Your task to perform on an android device: turn on the 24-hour format for clock Image 0: 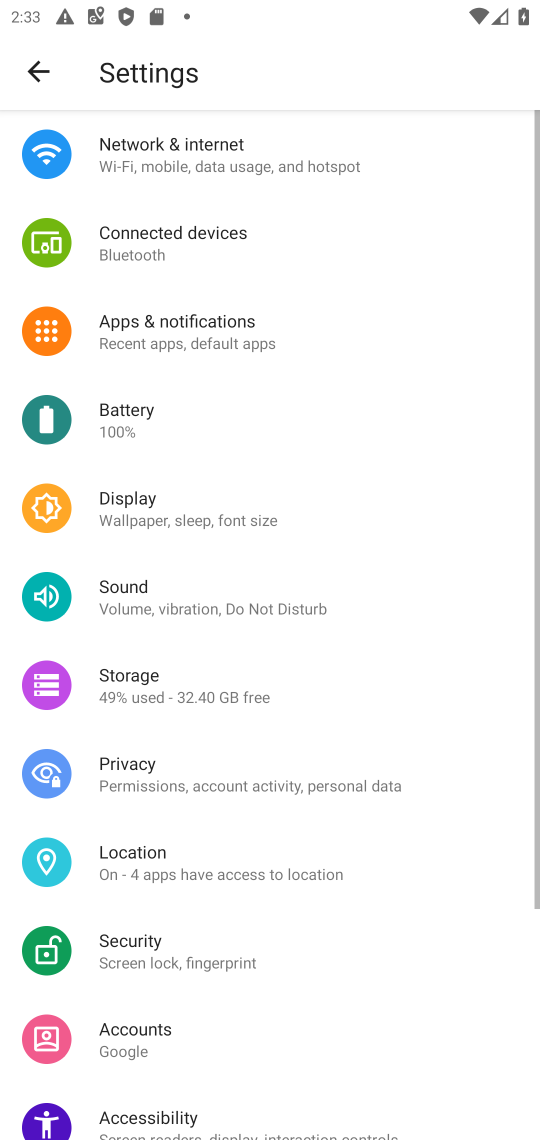
Step 0: press home button
Your task to perform on an android device: turn on the 24-hour format for clock Image 1: 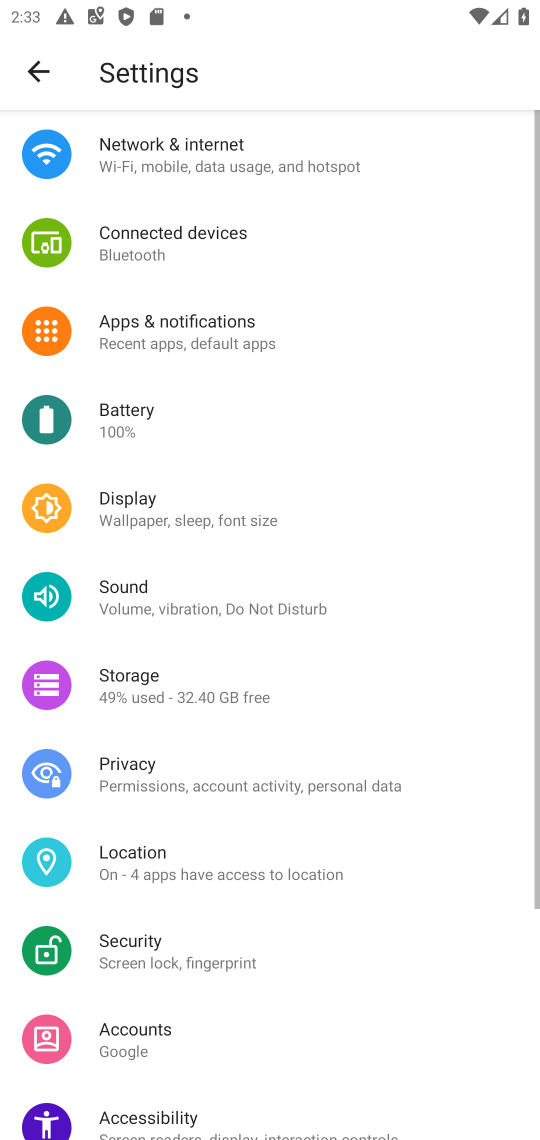
Step 1: press home button
Your task to perform on an android device: turn on the 24-hour format for clock Image 2: 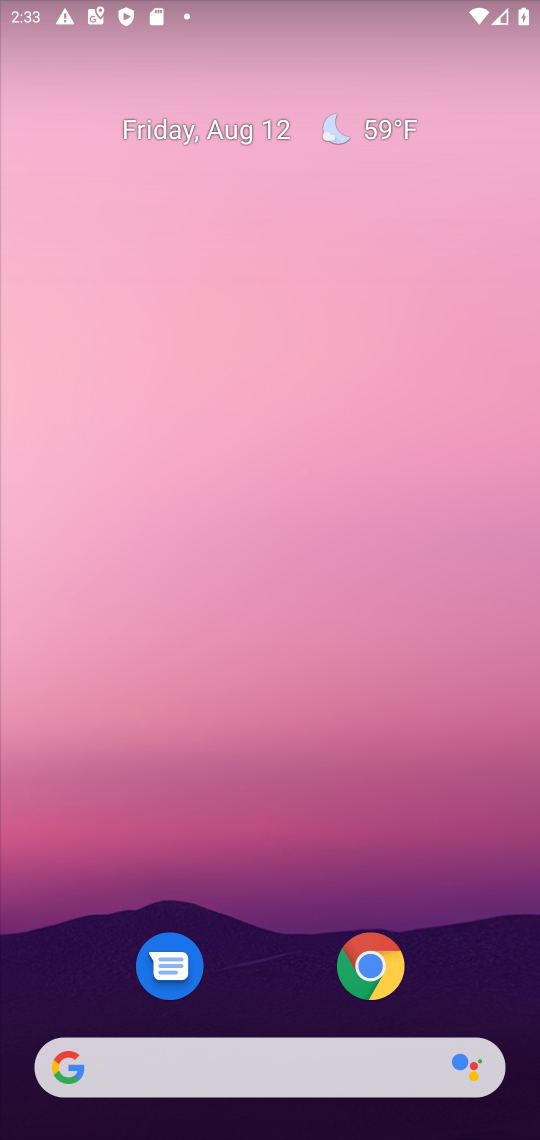
Step 2: press home button
Your task to perform on an android device: turn on the 24-hour format for clock Image 3: 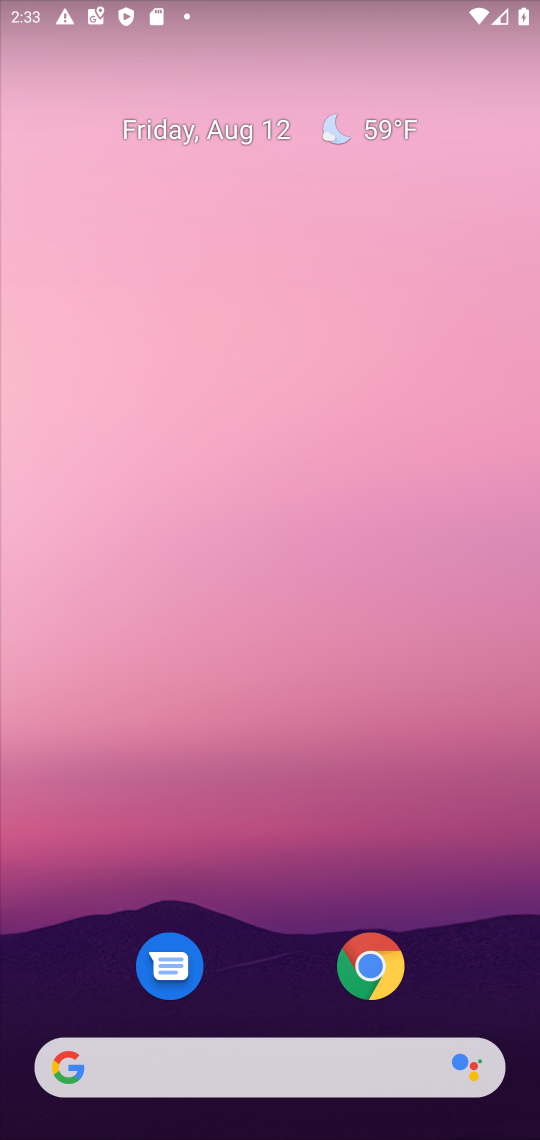
Step 3: drag from (281, 832) to (402, 192)
Your task to perform on an android device: turn on the 24-hour format for clock Image 4: 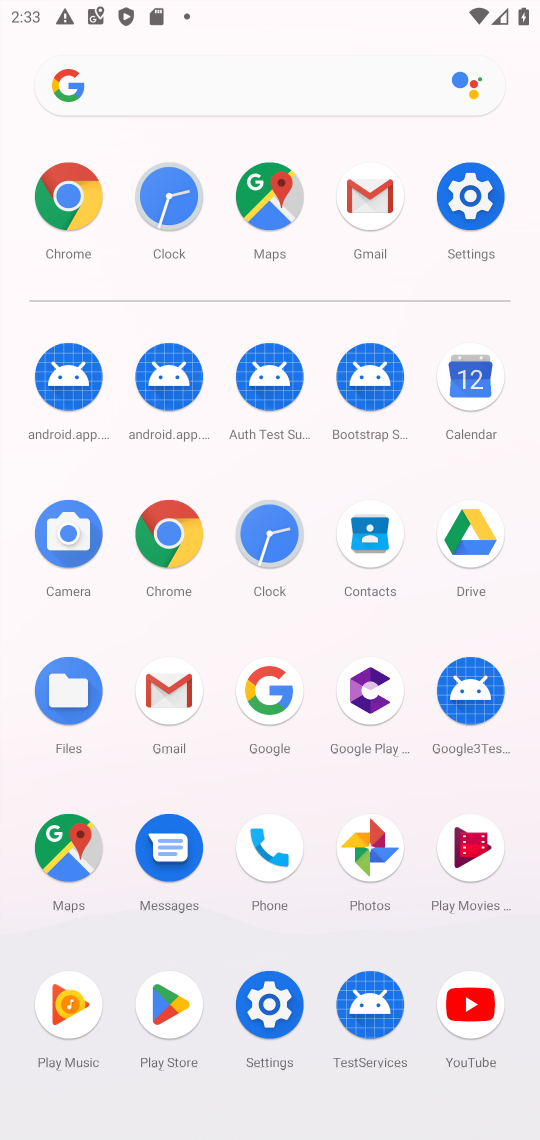
Step 4: click (287, 530)
Your task to perform on an android device: turn on the 24-hour format for clock Image 5: 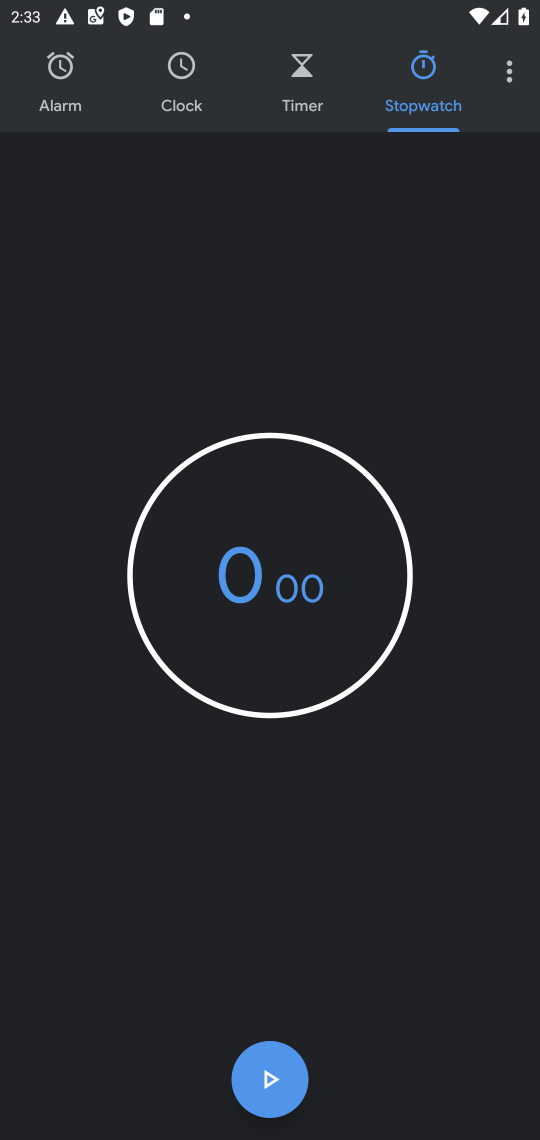
Step 5: click (516, 71)
Your task to perform on an android device: turn on the 24-hour format for clock Image 6: 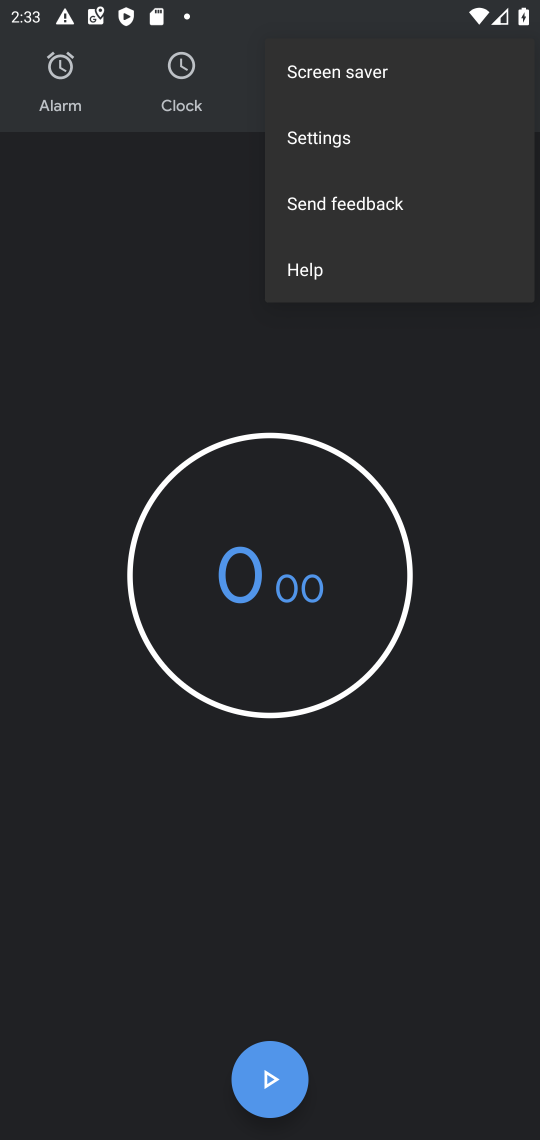
Step 6: click (320, 149)
Your task to perform on an android device: turn on the 24-hour format for clock Image 7: 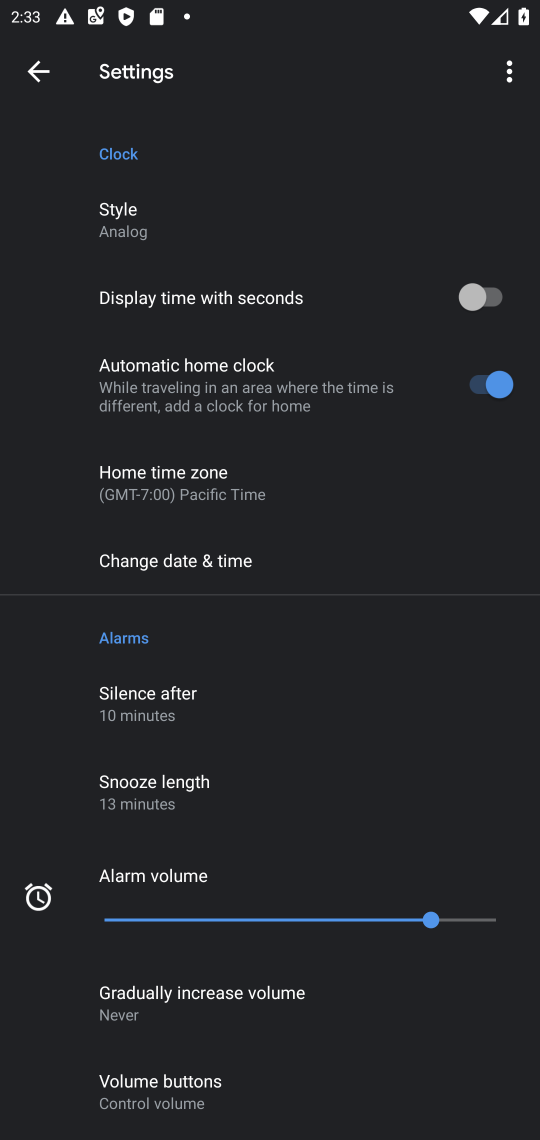
Step 7: click (210, 575)
Your task to perform on an android device: turn on the 24-hour format for clock Image 8: 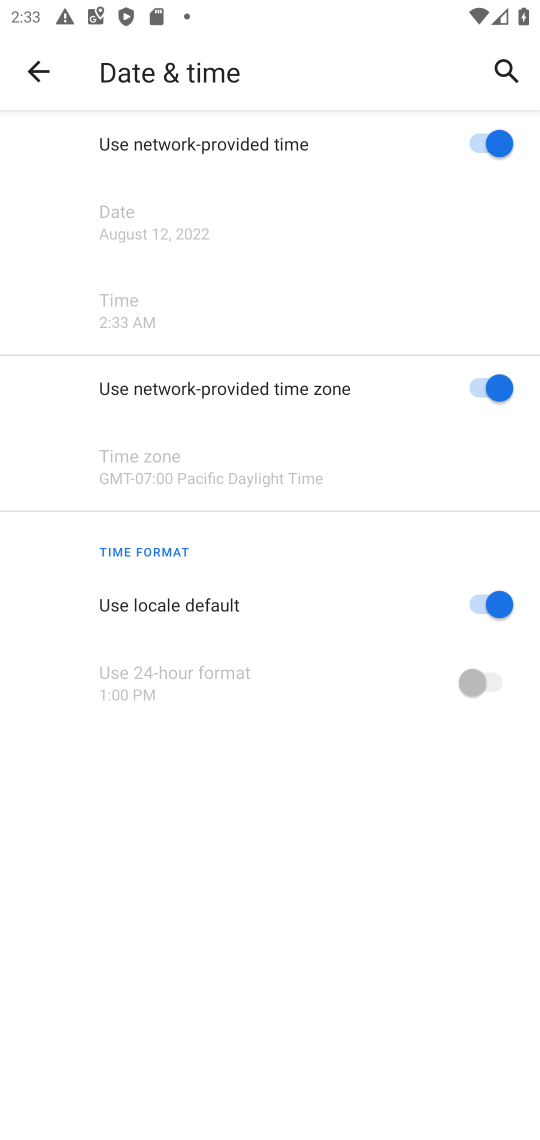
Step 8: click (492, 617)
Your task to perform on an android device: turn on the 24-hour format for clock Image 9: 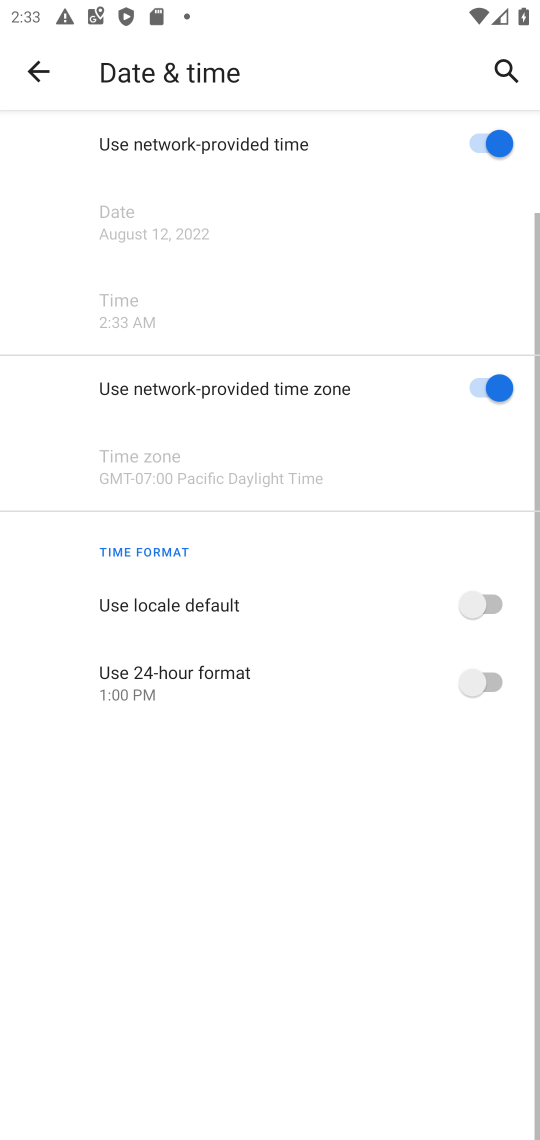
Step 9: click (456, 680)
Your task to perform on an android device: turn on the 24-hour format for clock Image 10: 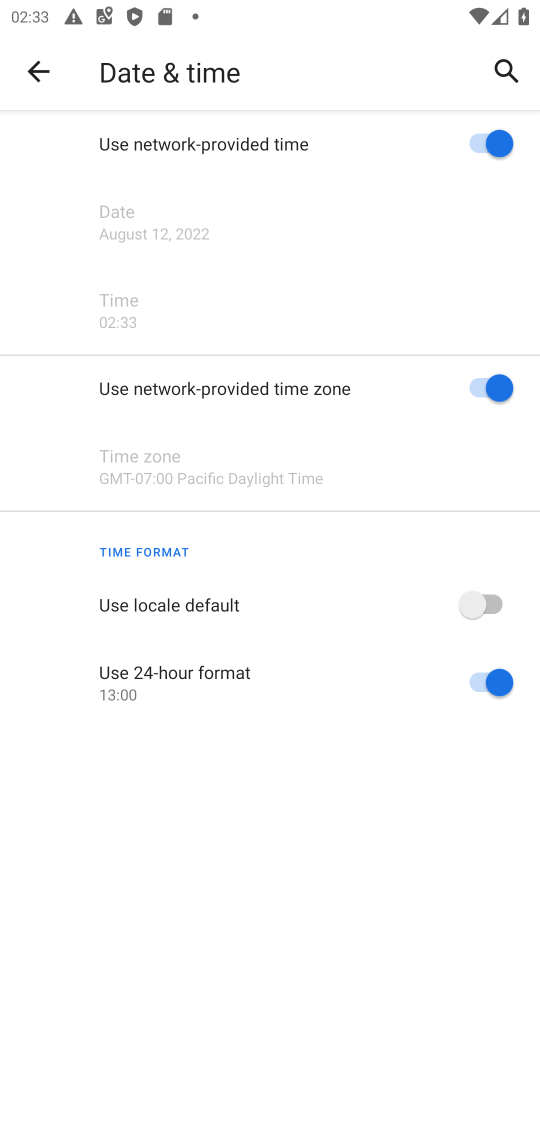
Step 10: task complete